Your task to perform on an android device: toggle data saver in the chrome app Image 0: 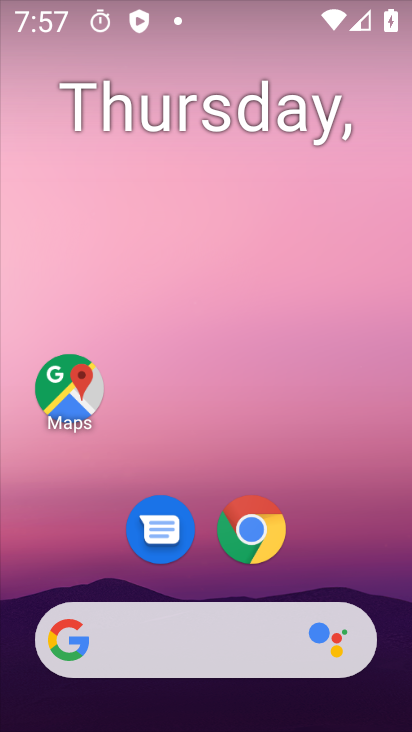
Step 0: click (240, 525)
Your task to perform on an android device: toggle data saver in the chrome app Image 1: 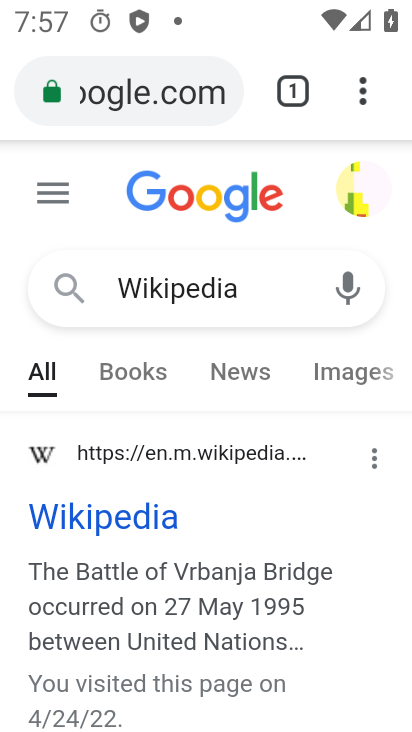
Step 1: click (358, 90)
Your task to perform on an android device: toggle data saver in the chrome app Image 2: 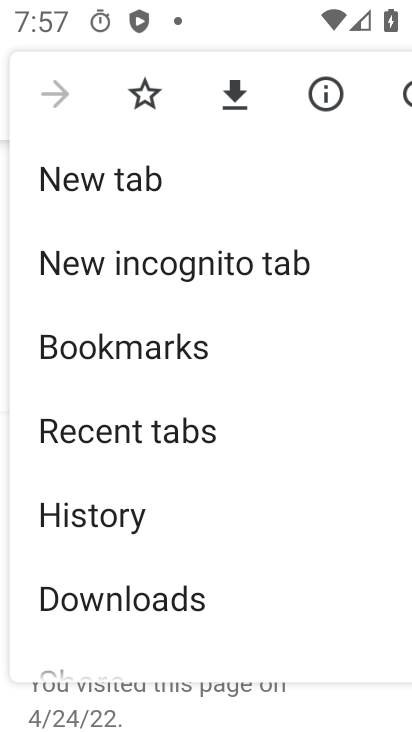
Step 2: drag from (321, 645) to (313, 305)
Your task to perform on an android device: toggle data saver in the chrome app Image 3: 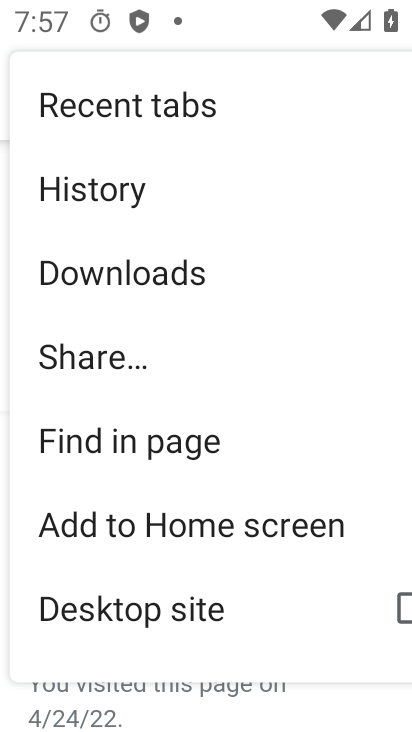
Step 3: drag from (298, 651) to (289, 444)
Your task to perform on an android device: toggle data saver in the chrome app Image 4: 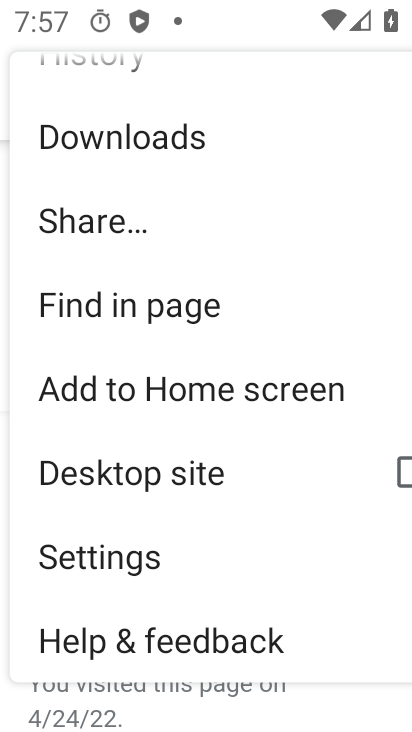
Step 4: drag from (319, 663) to (295, 342)
Your task to perform on an android device: toggle data saver in the chrome app Image 5: 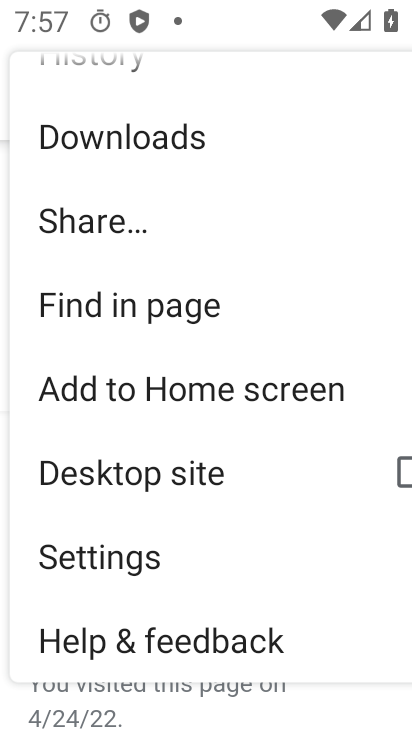
Step 5: drag from (296, 629) to (290, 370)
Your task to perform on an android device: toggle data saver in the chrome app Image 6: 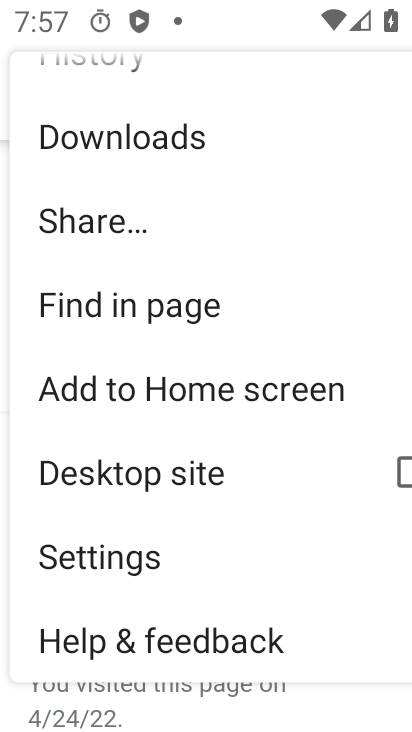
Step 6: click (86, 553)
Your task to perform on an android device: toggle data saver in the chrome app Image 7: 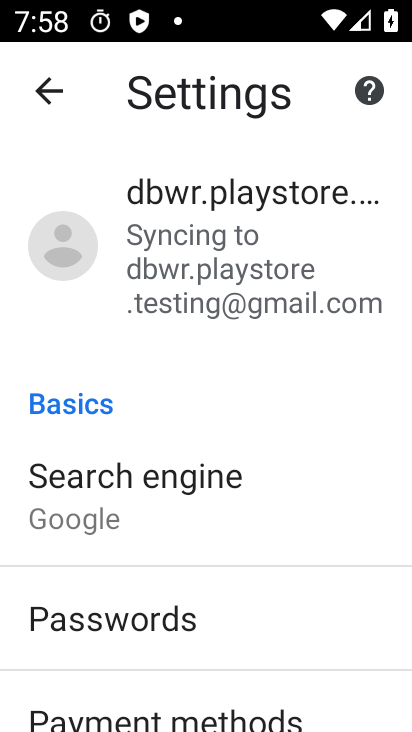
Step 7: drag from (288, 703) to (285, 318)
Your task to perform on an android device: toggle data saver in the chrome app Image 8: 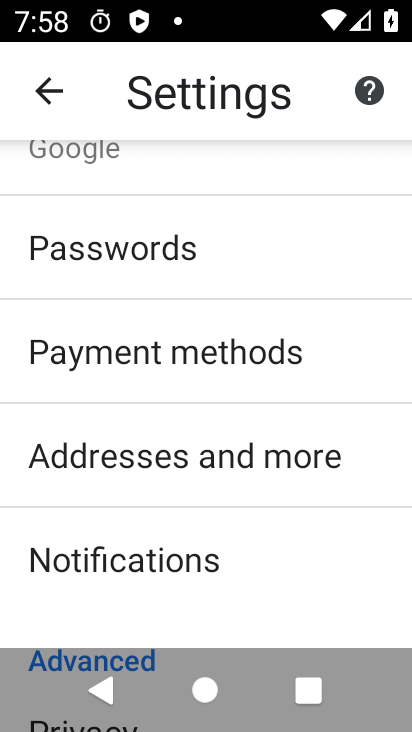
Step 8: drag from (331, 608) to (320, 308)
Your task to perform on an android device: toggle data saver in the chrome app Image 9: 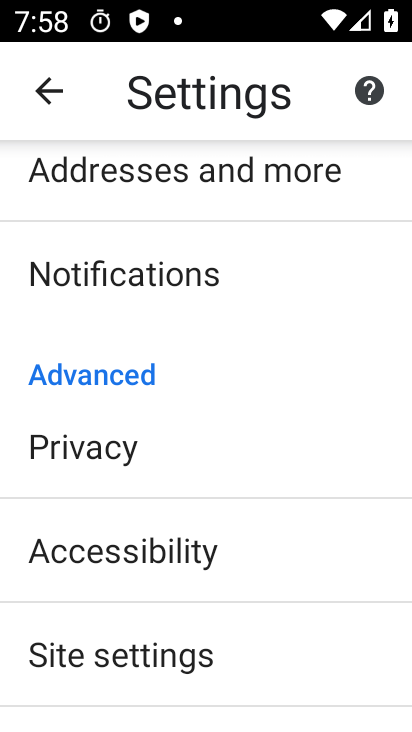
Step 9: drag from (331, 680) to (309, 363)
Your task to perform on an android device: toggle data saver in the chrome app Image 10: 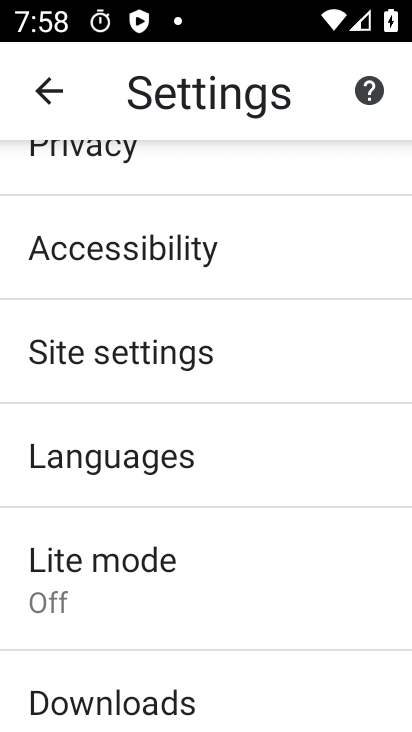
Step 10: drag from (283, 664) to (273, 400)
Your task to perform on an android device: toggle data saver in the chrome app Image 11: 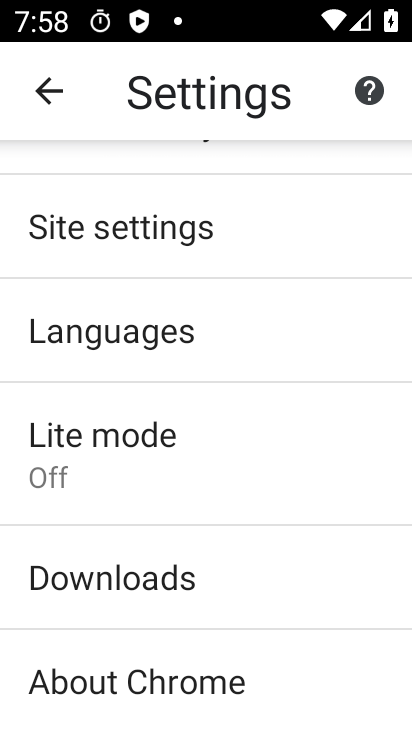
Step 11: drag from (290, 702) to (292, 432)
Your task to perform on an android device: toggle data saver in the chrome app Image 12: 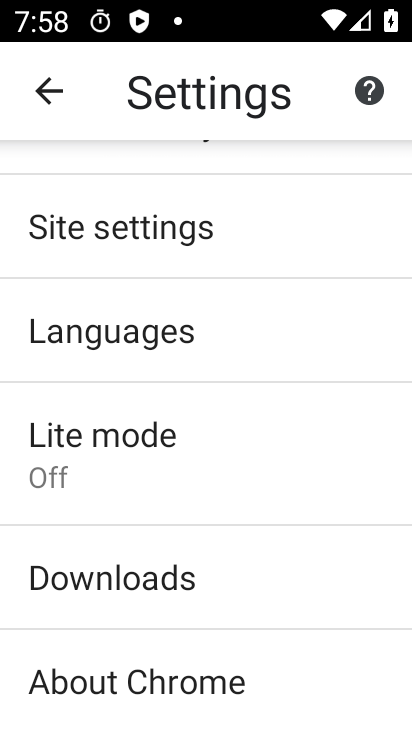
Step 12: click (101, 437)
Your task to perform on an android device: toggle data saver in the chrome app Image 13: 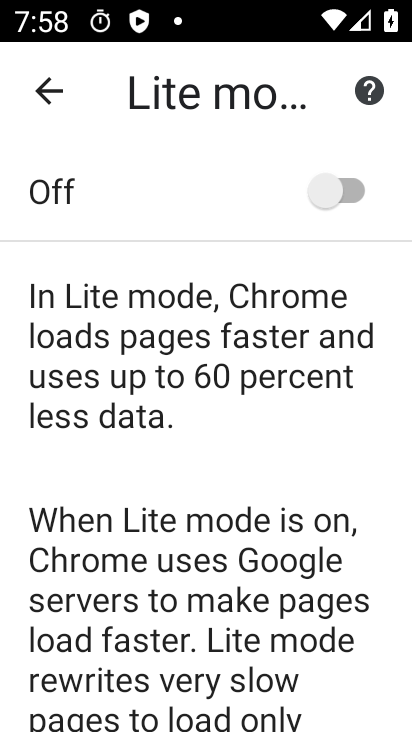
Step 13: click (344, 193)
Your task to perform on an android device: toggle data saver in the chrome app Image 14: 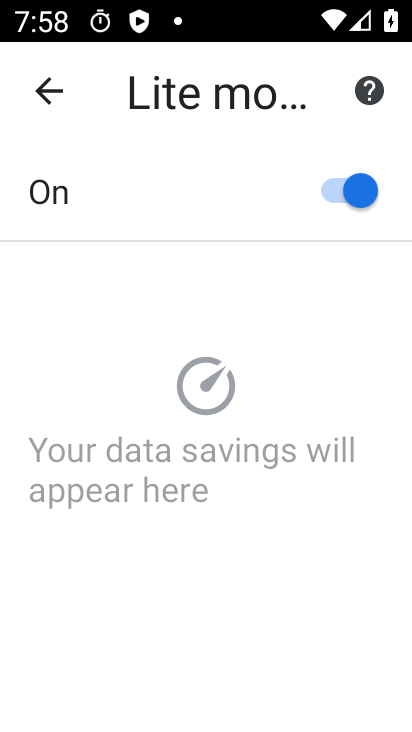
Step 14: task complete